Your task to perform on an android device: turn on airplane mode Image 0: 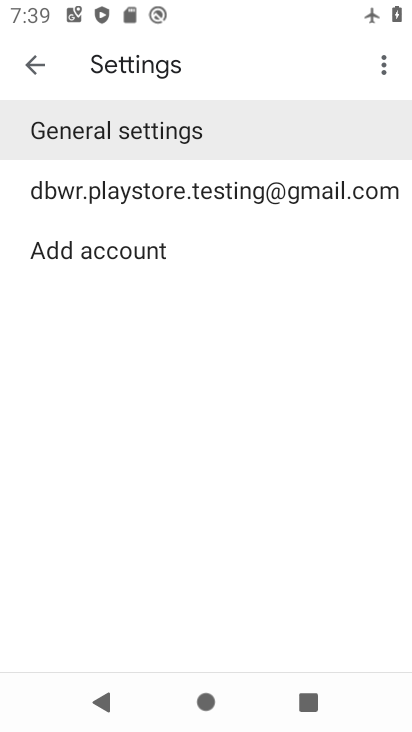
Step 0: press back button
Your task to perform on an android device: turn on airplane mode Image 1: 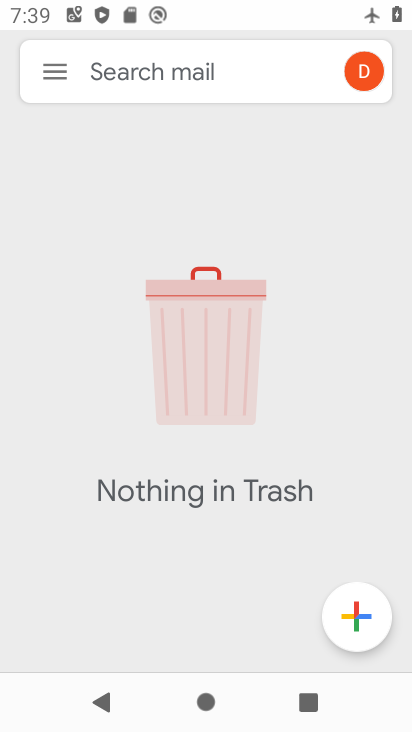
Step 1: press back button
Your task to perform on an android device: turn on airplane mode Image 2: 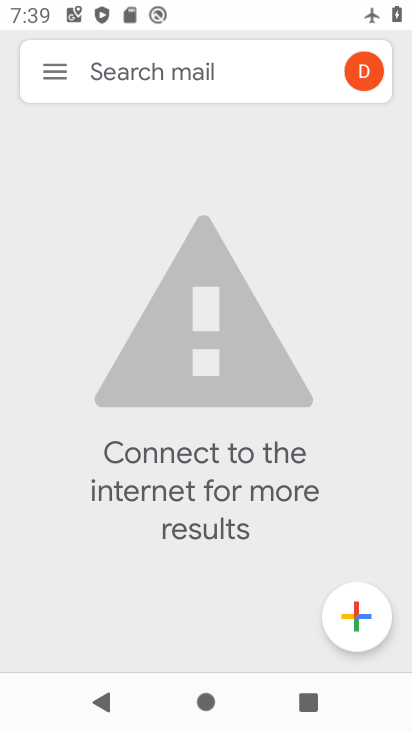
Step 2: press back button
Your task to perform on an android device: turn on airplane mode Image 3: 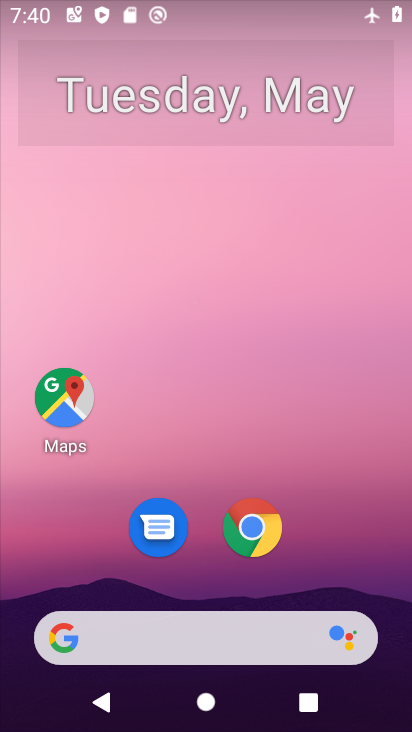
Step 3: drag from (351, 549) to (335, 172)
Your task to perform on an android device: turn on airplane mode Image 4: 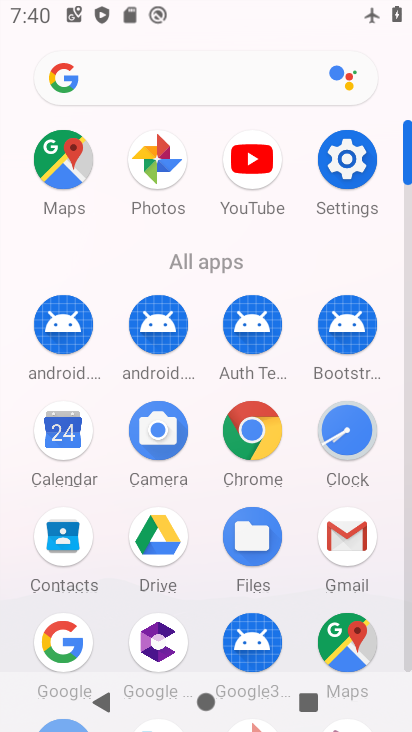
Step 4: click (346, 158)
Your task to perform on an android device: turn on airplane mode Image 5: 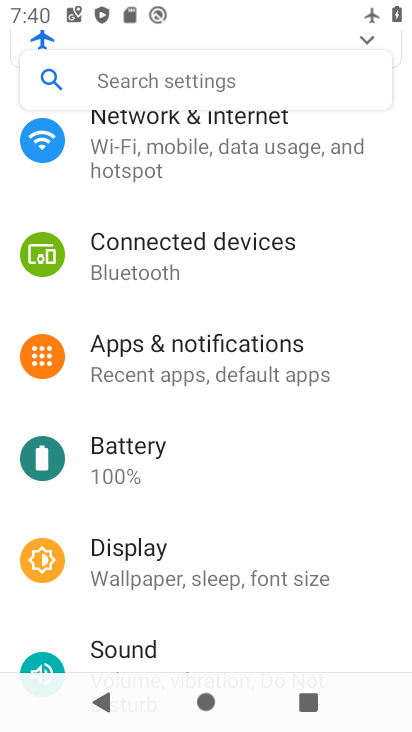
Step 5: click (287, 153)
Your task to perform on an android device: turn on airplane mode Image 6: 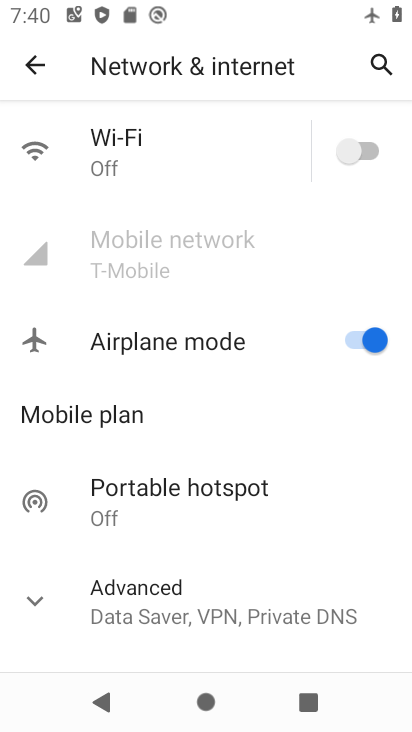
Step 6: task complete